Your task to perform on an android device: show emergency info Image 0: 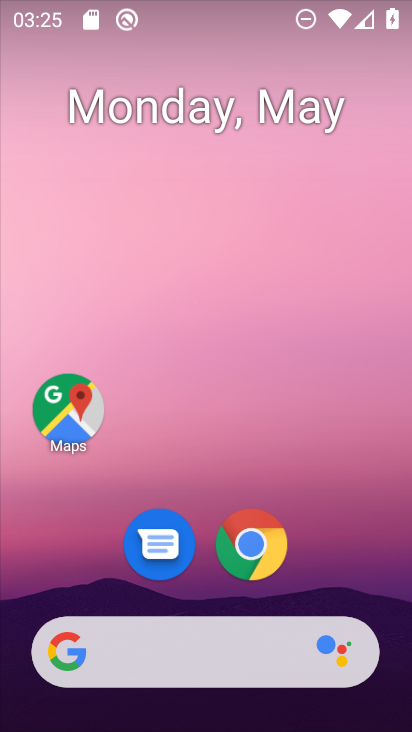
Step 0: drag from (378, 584) to (376, 194)
Your task to perform on an android device: show emergency info Image 1: 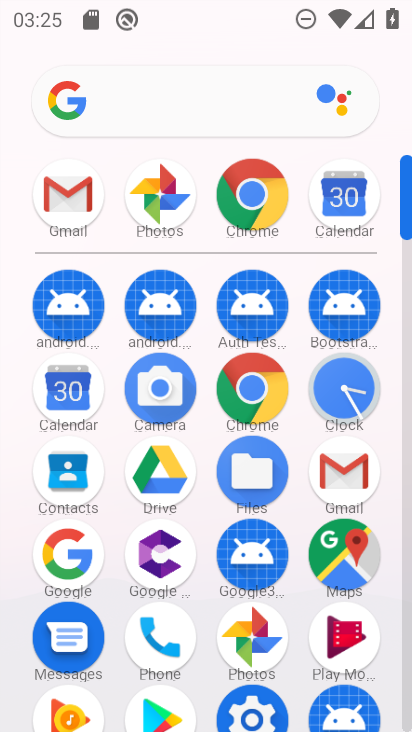
Step 1: drag from (388, 519) to (398, 290)
Your task to perform on an android device: show emergency info Image 2: 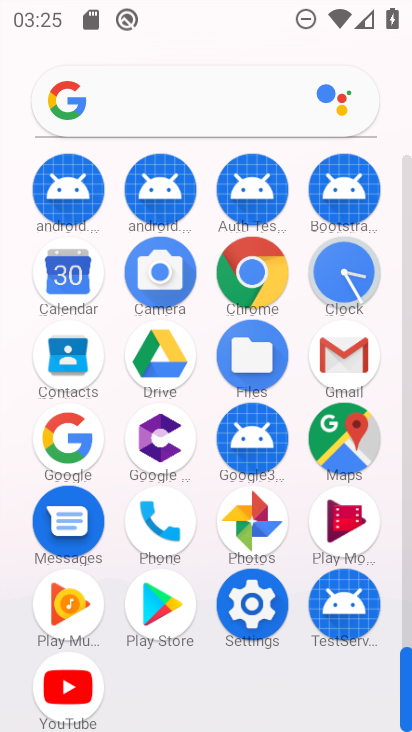
Step 2: click (243, 607)
Your task to perform on an android device: show emergency info Image 3: 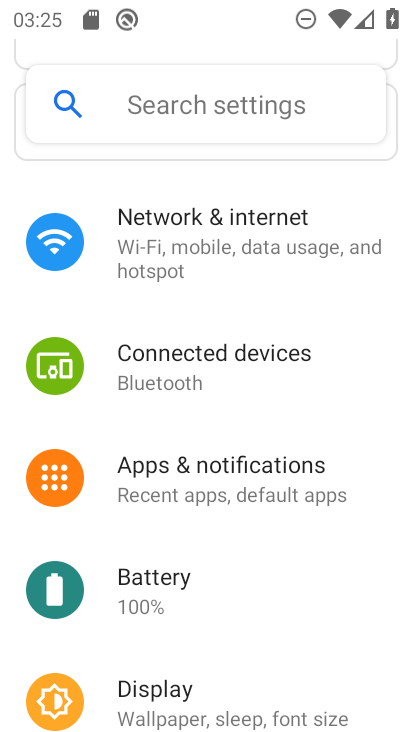
Step 3: drag from (304, 583) to (343, 440)
Your task to perform on an android device: show emergency info Image 4: 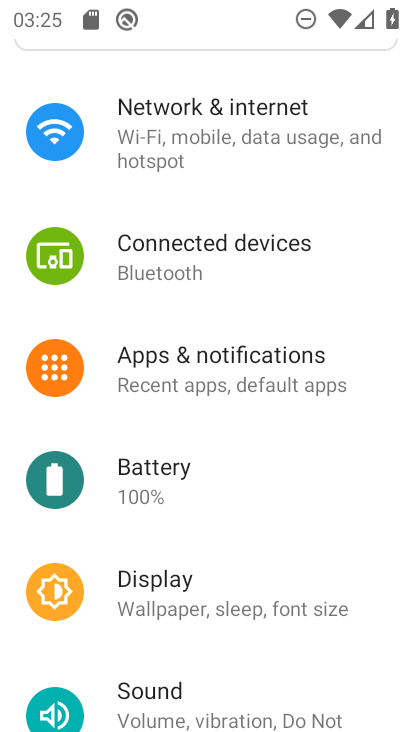
Step 4: drag from (352, 621) to (358, 435)
Your task to perform on an android device: show emergency info Image 5: 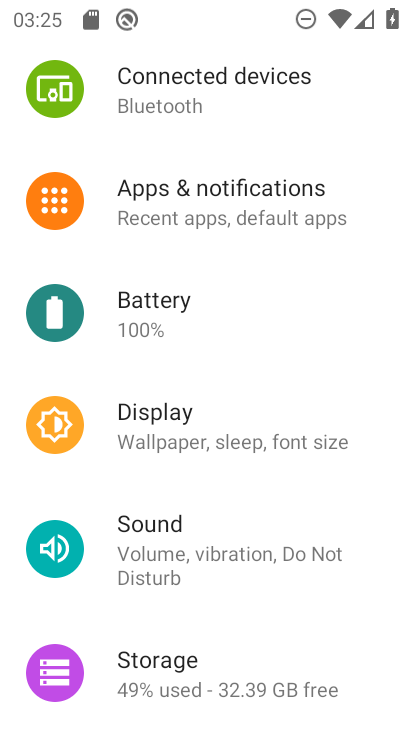
Step 5: drag from (343, 610) to (339, 494)
Your task to perform on an android device: show emergency info Image 6: 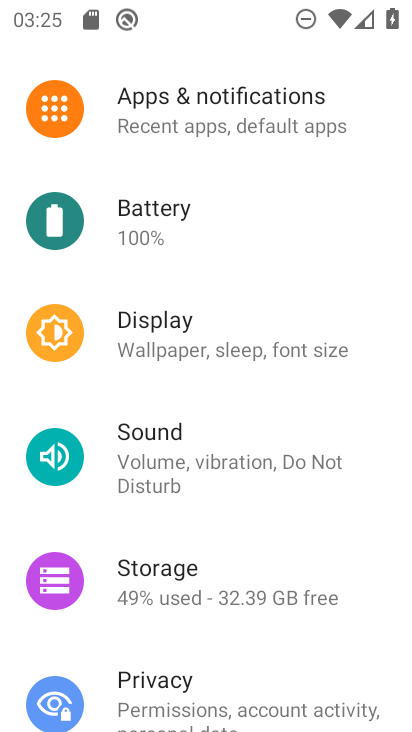
Step 6: drag from (352, 640) to (367, 487)
Your task to perform on an android device: show emergency info Image 7: 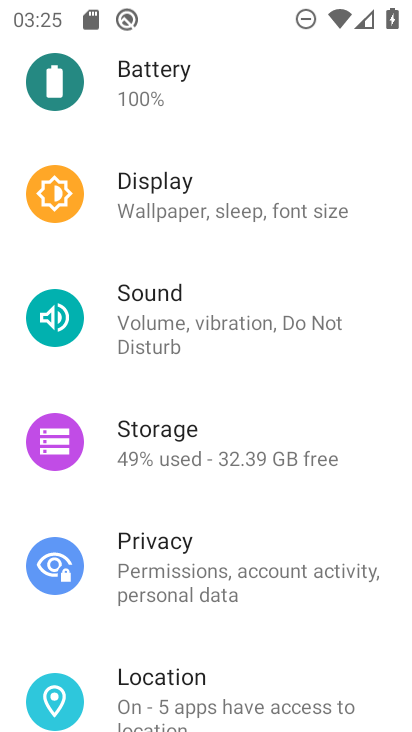
Step 7: drag from (350, 627) to (354, 523)
Your task to perform on an android device: show emergency info Image 8: 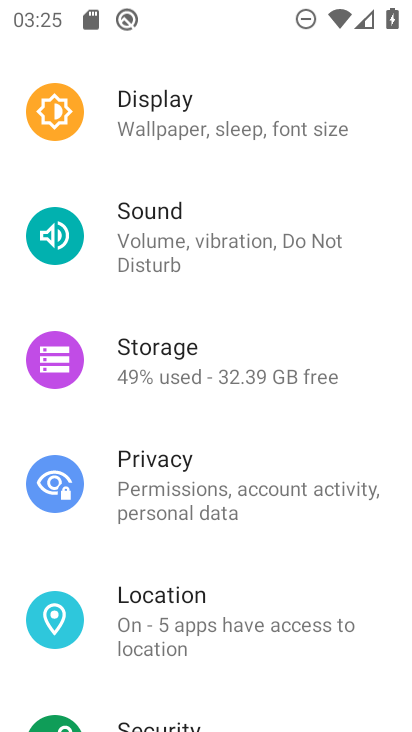
Step 8: drag from (355, 666) to (372, 547)
Your task to perform on an android device: show emergency info Image 9: 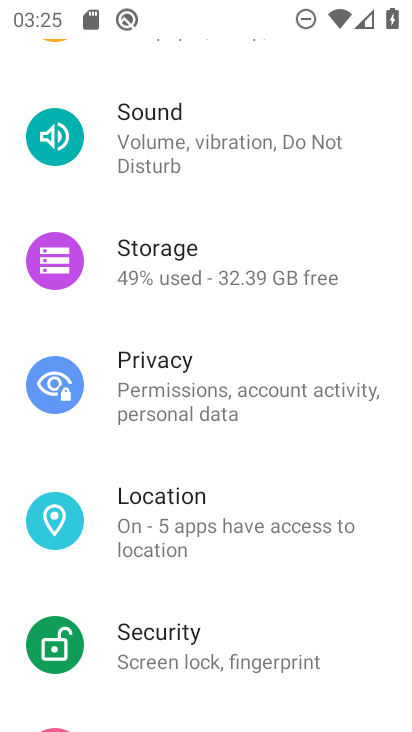
Step 9: drag from (340, 663) to (343, 502)
Your task to perform on an android device: show emergency info Image 10: 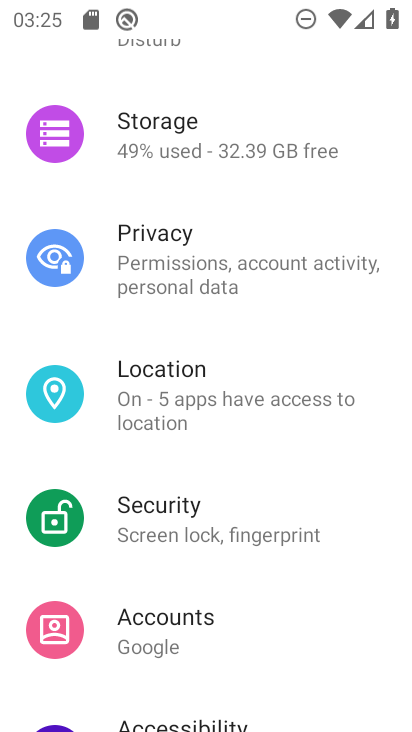
Step 10: drag from (313, 638) to (322, 522)
Your task to perform on an android device: show emergency info Image 11: 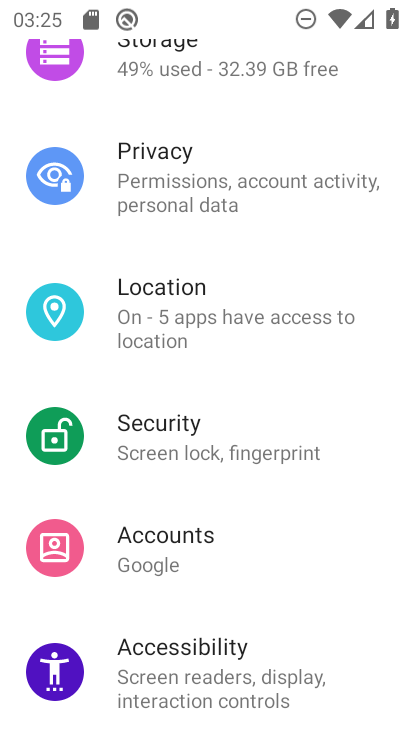
Step 11: drag from (330, 564) to (349, 413)
Your task to perform on an android device: show emergency info Image 12: 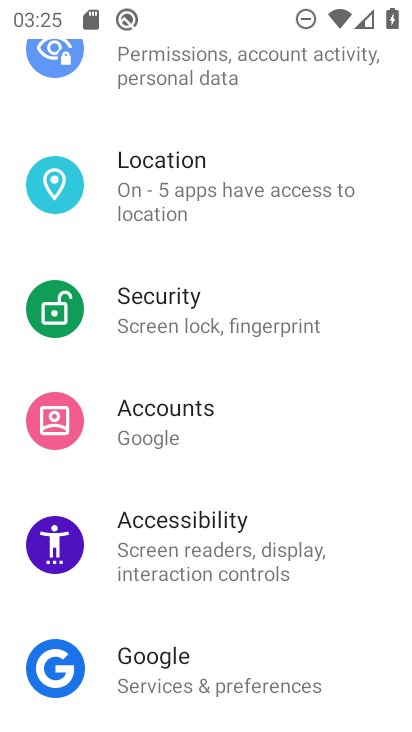
Step 12: drag from (366, 612) to (365, 430)
Your task to perform on an android device: show emergency info Image 13: 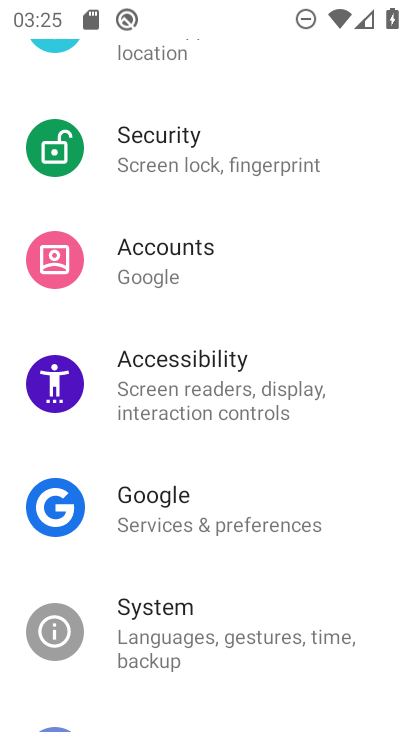
Step 13: drag from (356, 652) to (354, 483)
Your task to perform on an android device: show emergency info Image 14: 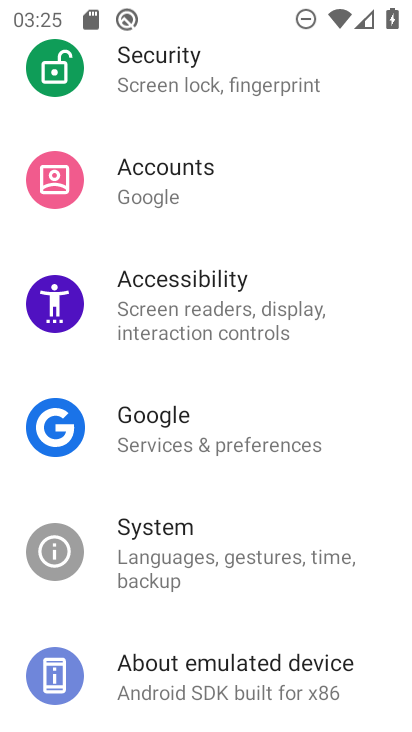
Step 14: click (339, 672)
Your task to perform on an android device: show emergency info Image 15: 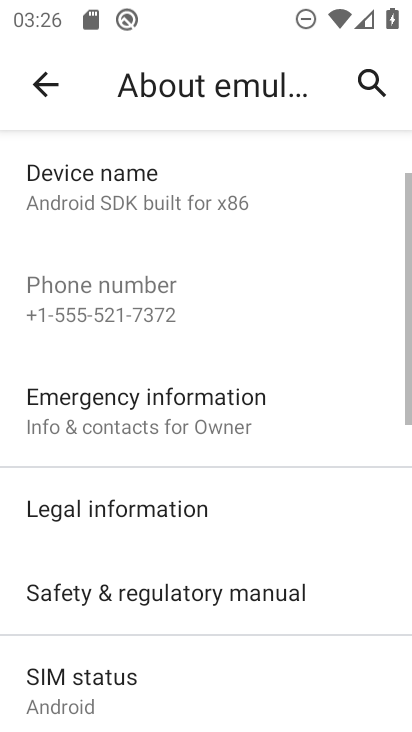
Step 15: click (240, 420)
Your task to perform on an android device: show emergency info Image 16: 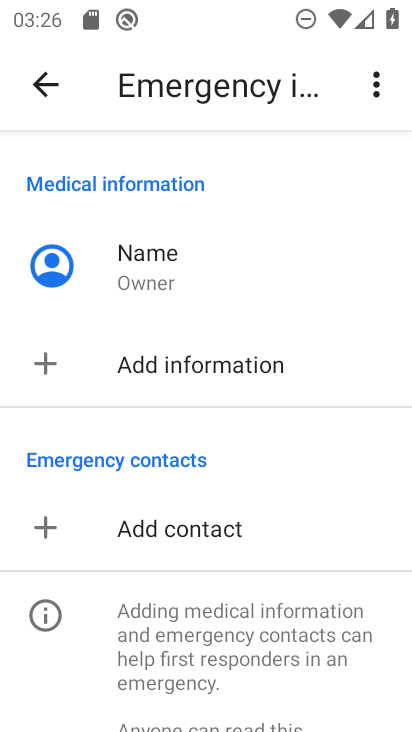
Step 16: task complete